Your task to perform on an android device: turn off smart reply in the gmail app Image 0: 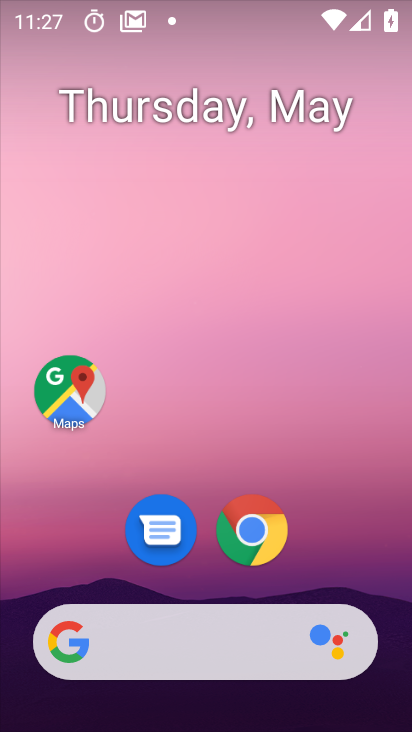
Step 0: click (399, 307)
Your task to perform on an android device: turn off smart reply in the gmail app Image 1: 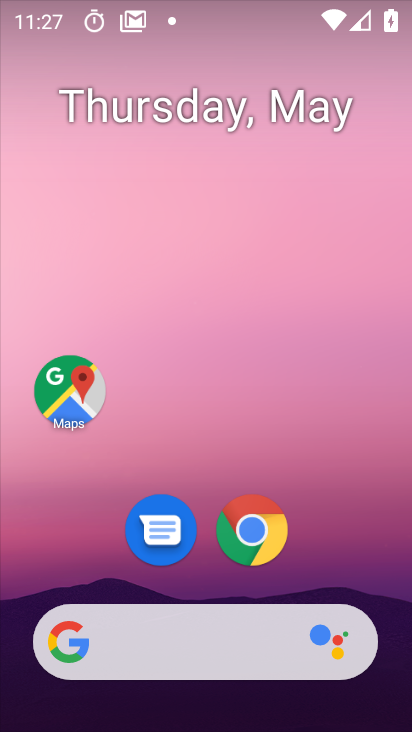
Step 1: drag from (361, 560) to (290, 172)
Your task to perform on an android device: turn off smart reply in the gmail app Image 2: 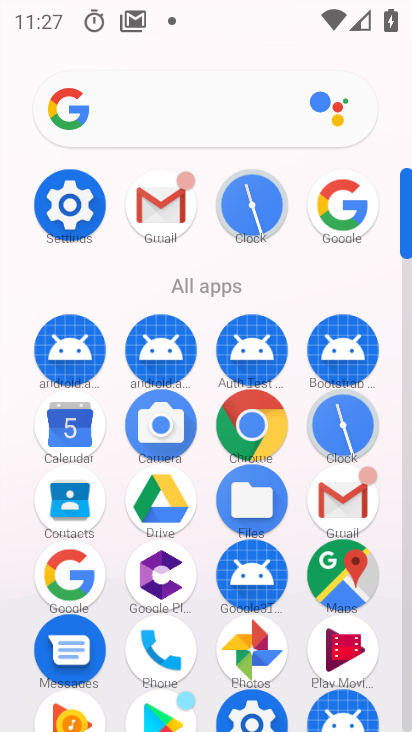
Step 2: click (342, 510)
Your task to perform on an android device: turn off smart reply in the gmail app Image 3: 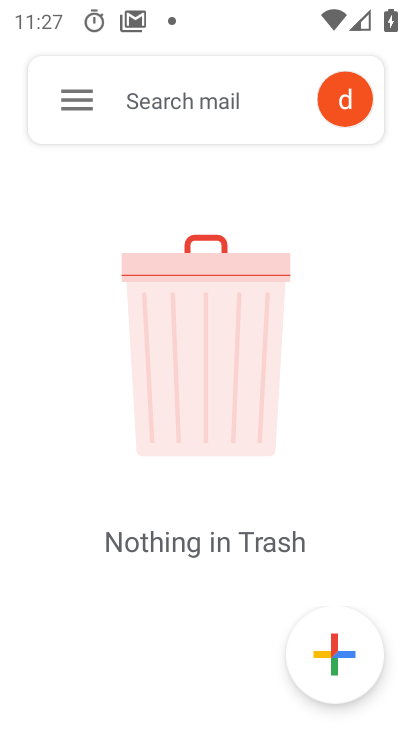
Step 3: click (65, 96)
Your task to perform on an android device: turn off smart reply in the gmail app Image 4: 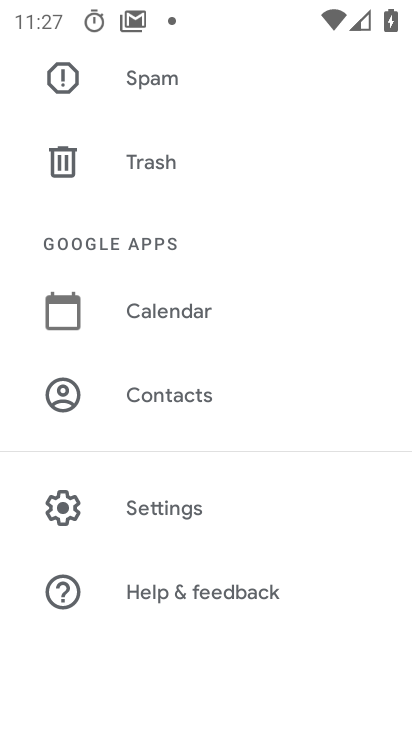
Step 4: drag from (338, 499) to (334, 354)
Your task to perform on an android device: turn off smart reply in the gmail app Image 5: 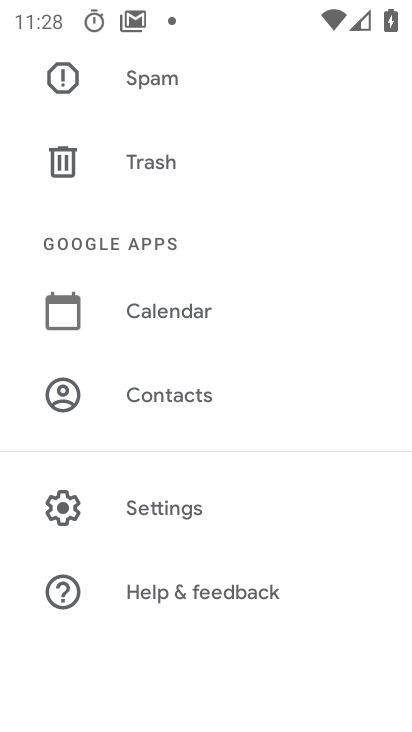
Step 5: click (147, 502)
Your task to perform on an android device: turn off smart reply in the gmail app Image 6: 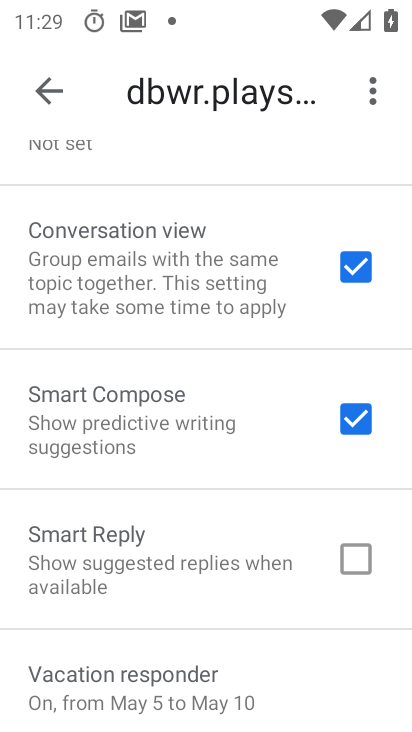
Step 6: task complete